Your task to perform on an android device: change the clock style Image 0: 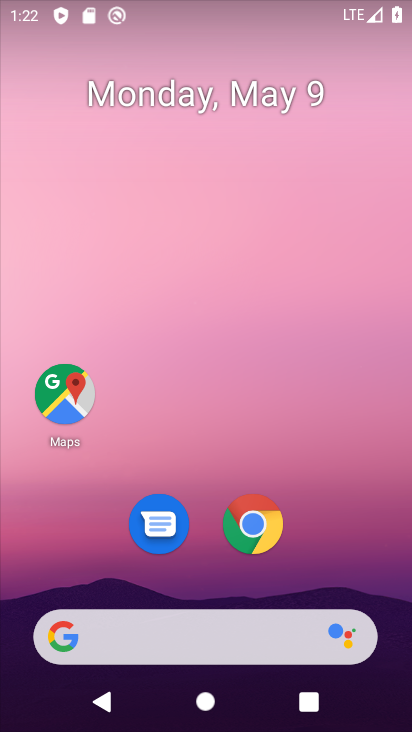
Step 0: drag from (324, 525) to (228, 46)
Your task to perform on an android device: change the clock style Image 1: 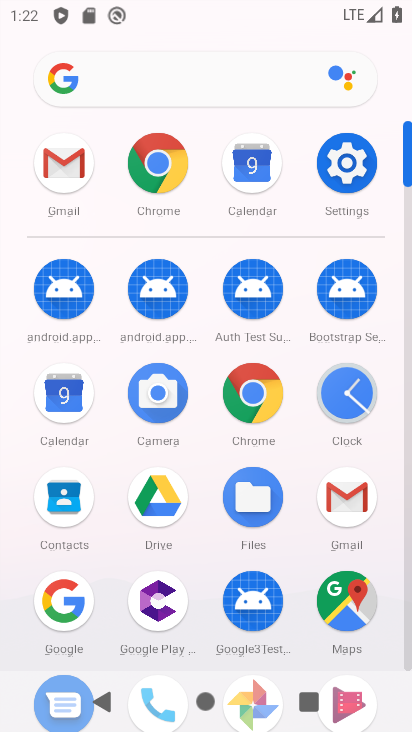
Step 1: click (331, 389)
Your task to perform on an android device: change the clock style Image 2: 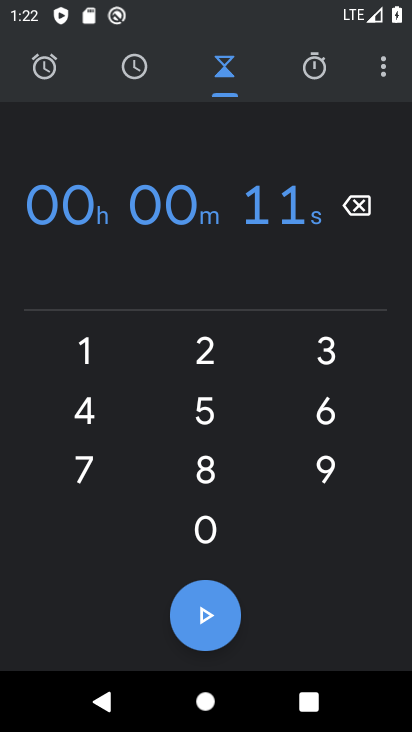
Step 2: click (132, 61)
Your task to perform on an android device: change the clock style Image 3: 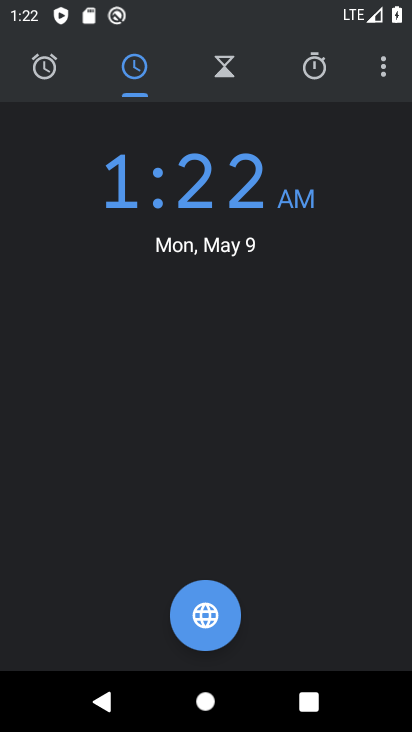
Step 3: click (382, 65)
Your task to perform on an android device: change the clock style Image 4: 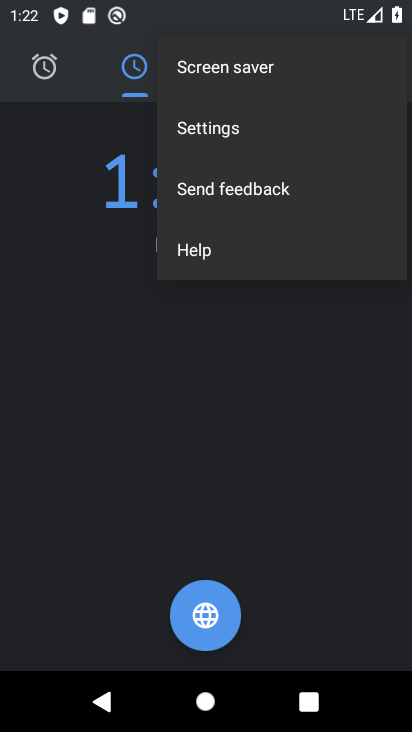
Step 4: click (264, 132)
Your task to perform on an android device: change the clock style Image 5: 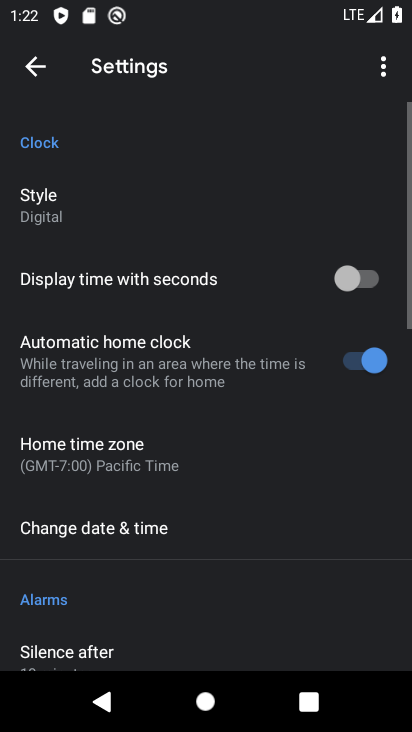
Step 5: click (98, 184)
Your task to perform on an android device: change the clock style Image 6: 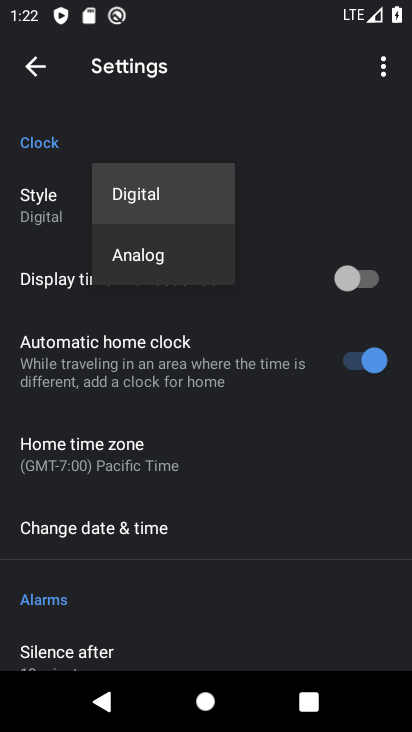
Step 6: click (142, 255)
Your task to perform on an android device: change the clock style Image 7: 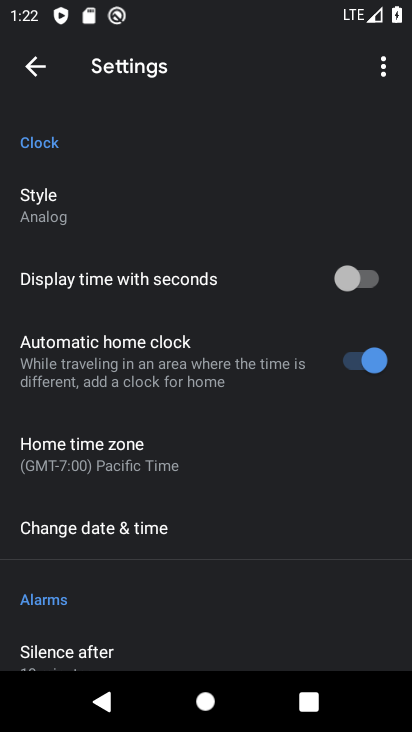
Step 7: click (34, 70)
Your task to perform on an android device: change the clock style Image 8: 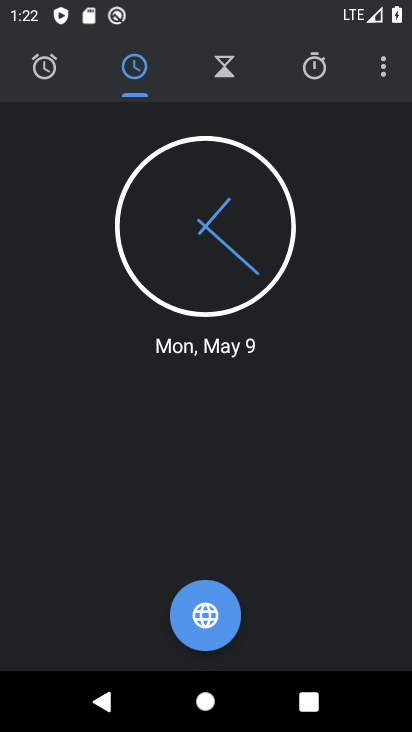
Step 8: task complete